Your task to perform on an android device: Go to display settings Image 0: 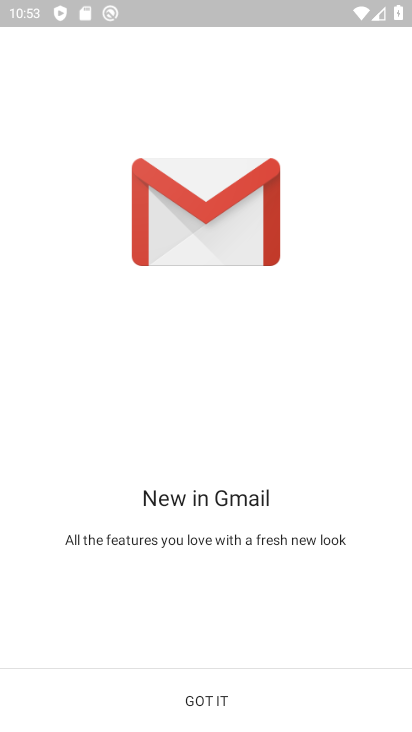
Step 0: press back button
Your task to perform on an android device: Go to display settings Image 1: 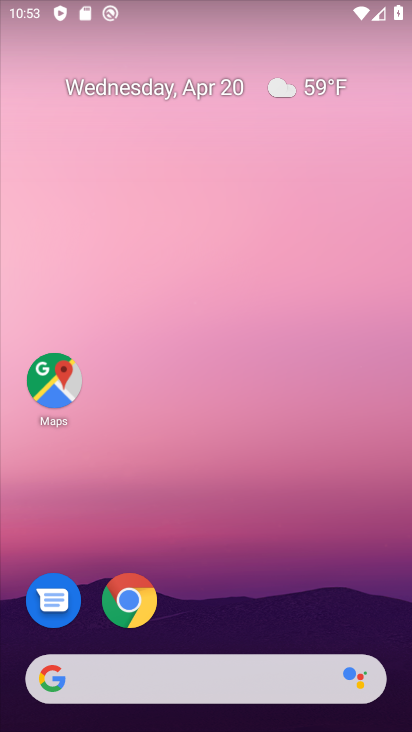
Step 1: drag from (322, 601) to (265, 172)
Your task to perform on an android device: Go to display settings Image 2: 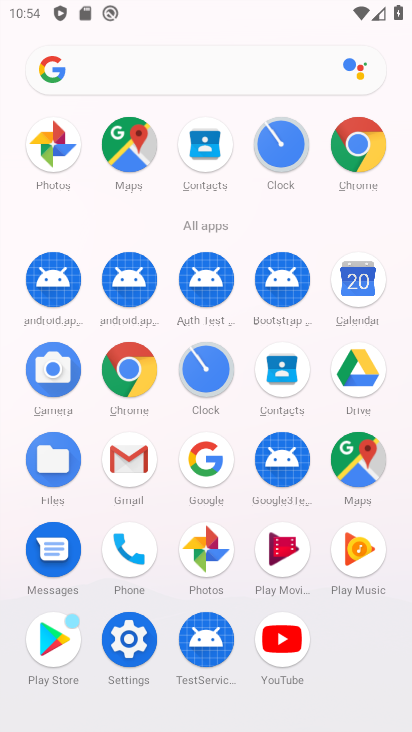
Step 2: click (133, 640)
Your task to perform on an android device: Go to display settings Image 3: 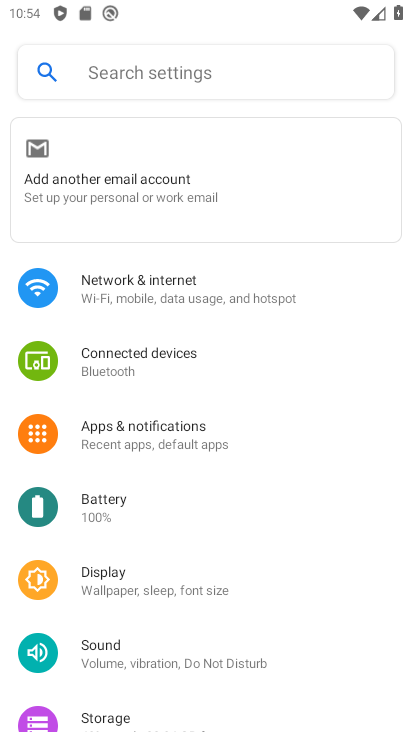
Step 3: click (241, 591)
Your task to perform on an android device: Go to display settings Image 4: 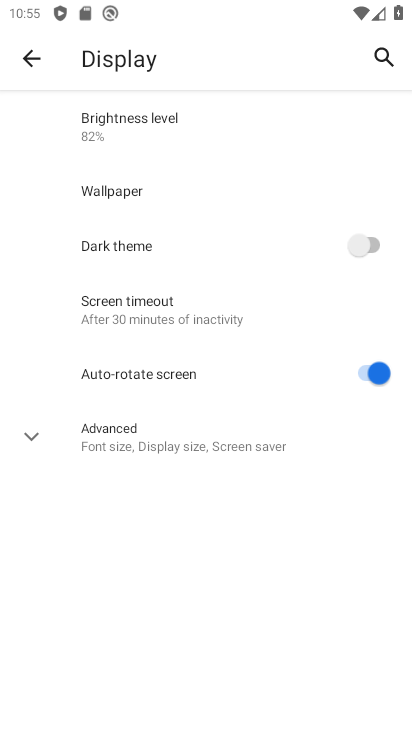
Step 4: task complete